Your task to perform on an android device: turn off notifications in google photos Image 0: 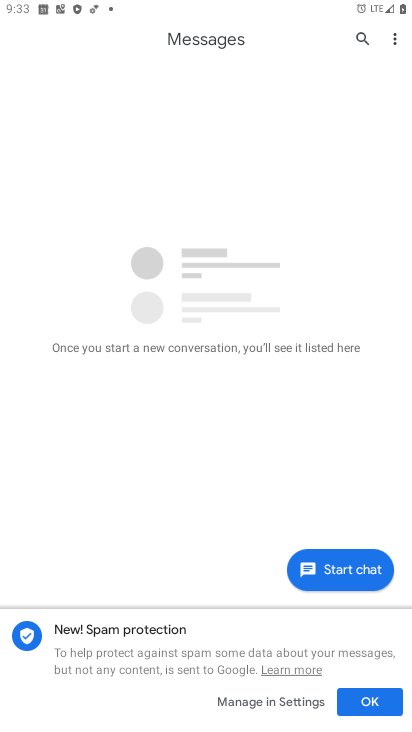
Step 0: press home button
Your task to perform on an android device: turn off notifications in google photos Image 1: 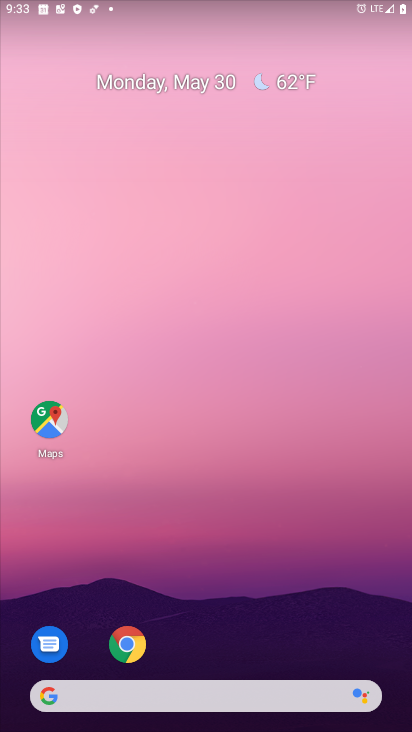
Step 1: drag from (391, 647) to (269, 122)
Your task to perform on an android device: turn off notifications in google photos Image 2: 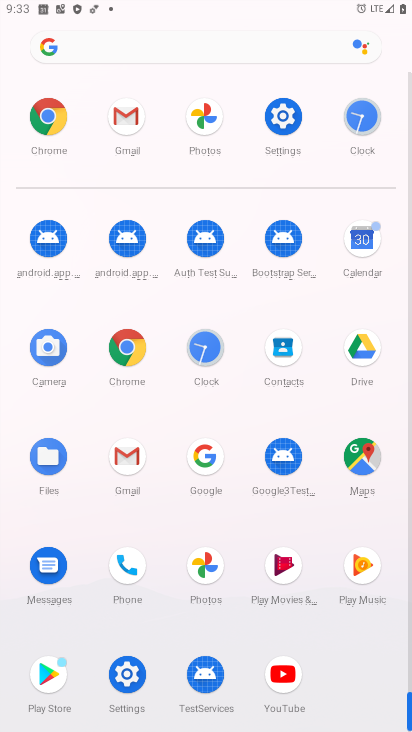
Step 2: click (205, 566)
Your task to perform on an android device: turn off notifications in google photos Image 3: 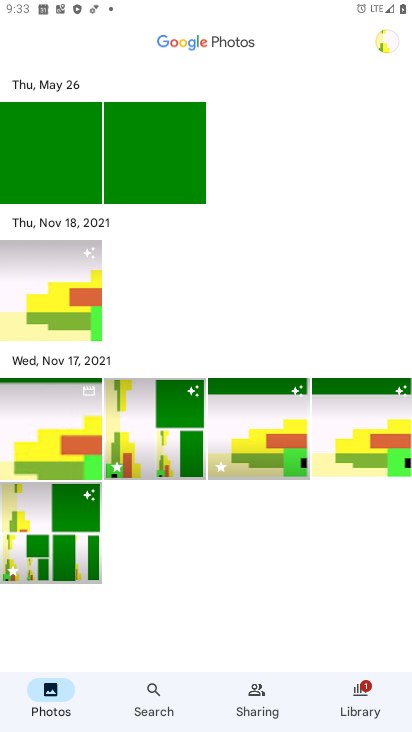
Step 3: click (387, 45)
Your task to perform on an android device: turn off notifications in google photos Image 4: 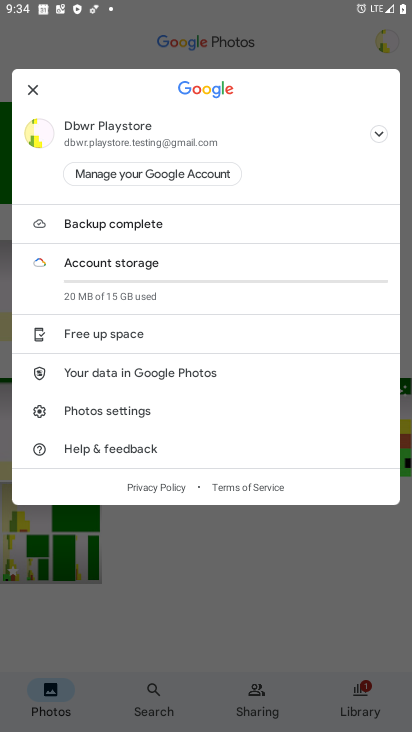
Step 4: click (126, 409)
Your task to perform on an android device: turn off notifications in google photos Image 5: 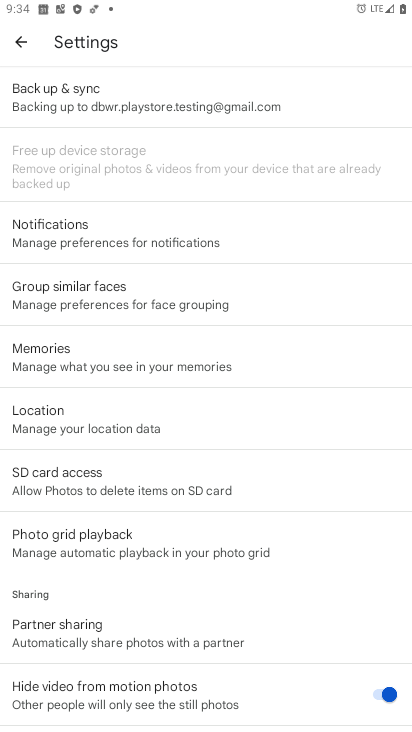
Step 5: click (99, 234)
Your task to perform on an android device: turn off notifications in google photos Image 6: 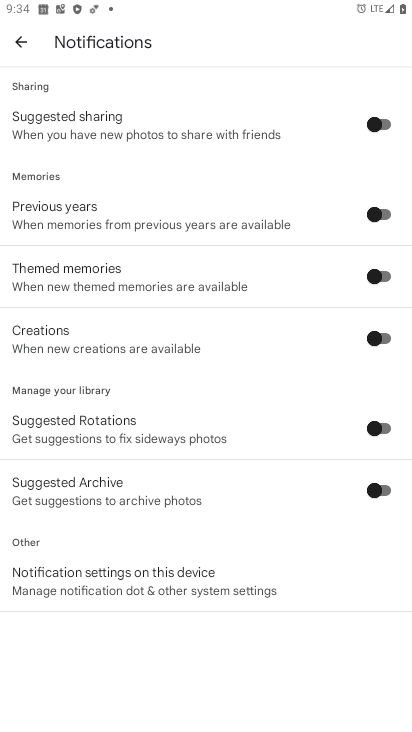
Step 6: click (142, 580)
Your task to perform on an android device: turn off notifications in google photos Image 7: 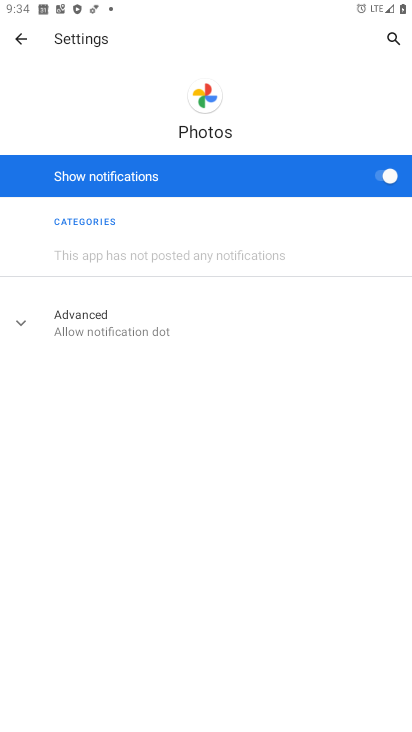
Step 7: click (380, 178)
Your task to perform on an android device: turn off notifications in google photos Image 8: 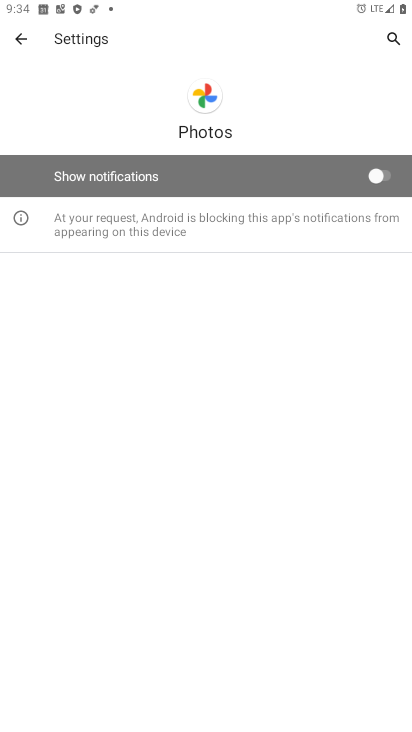
Step 8: task complete